Your task to perform on an android device: open chrome privacy settings Image 0: 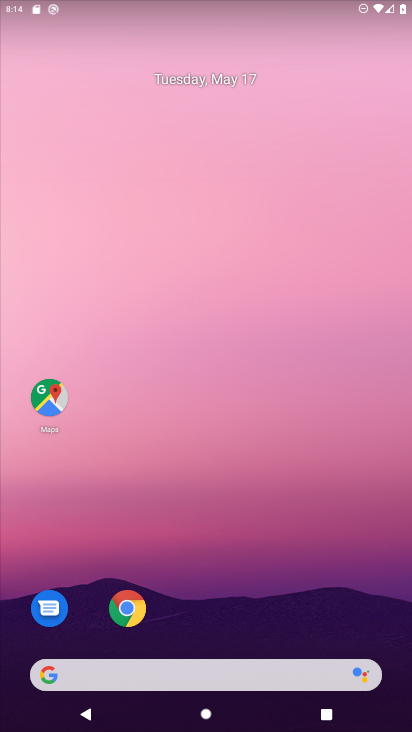
Step 0: click (133, 605)
Your task to perform on an android device: open chrome privacy settings Image 1: 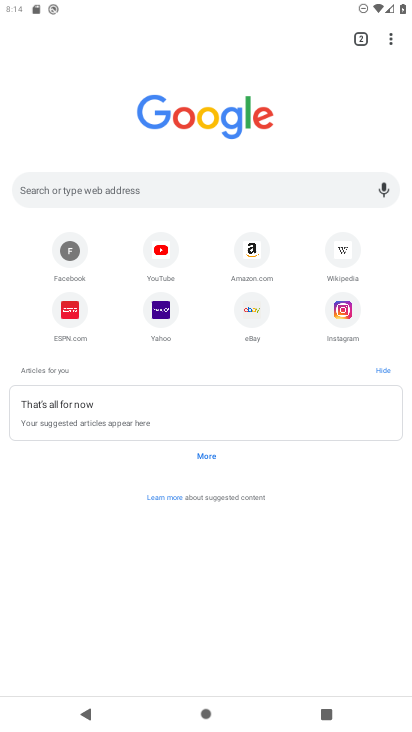
Step 1: click (387, 42)
Your task to perform on an android device: open chrome privacy settings Image 2: 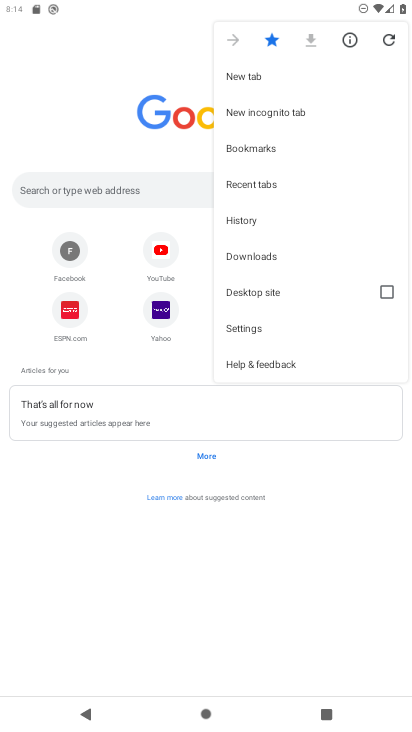
Step 2: click (263, 329)
Your task to perform on an android device: open chrome privacy settings Image 3: 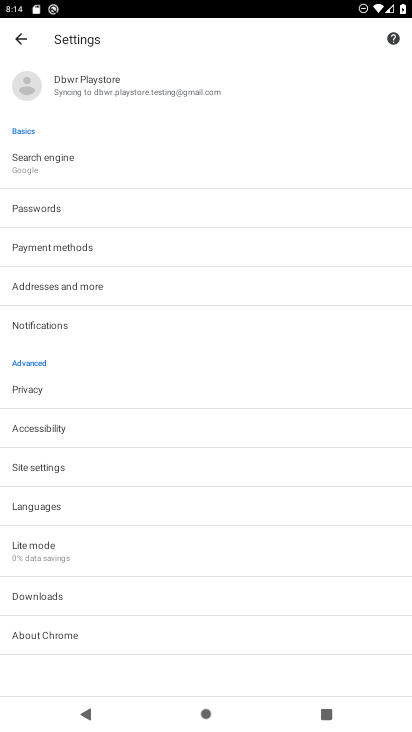
Step 3: click (47, 391)
Your task to perform on an android device: open chrome privacy settings Image 4: 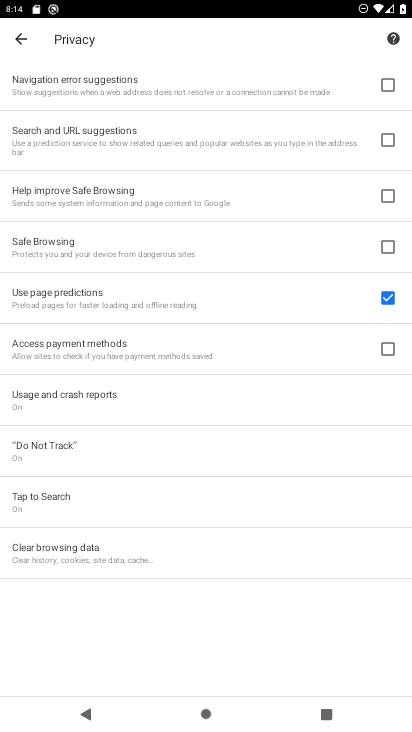
Step 4: task complete